Your task to perform on an android device: delete location history Image 0: 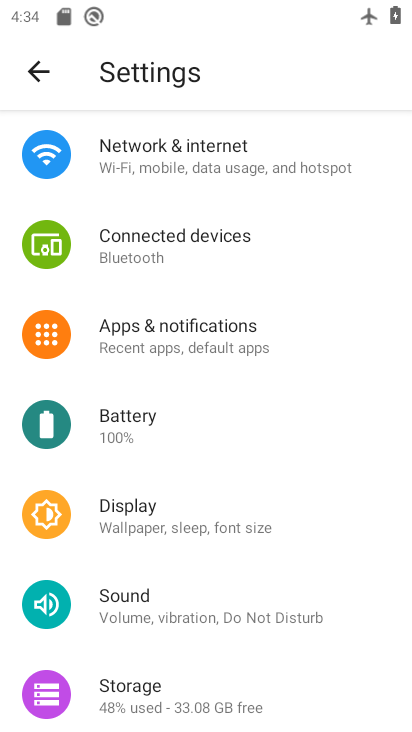
Step 0: drag from (137, 658) to (154, 263)
Your task to perform on an android device: delete location history Image 1: 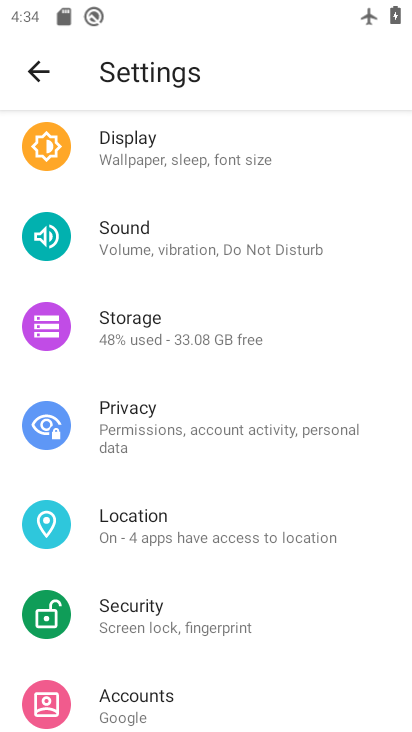
Step 1: click (135, 521)
Your task to perform on an android device: delete location history Image 2: 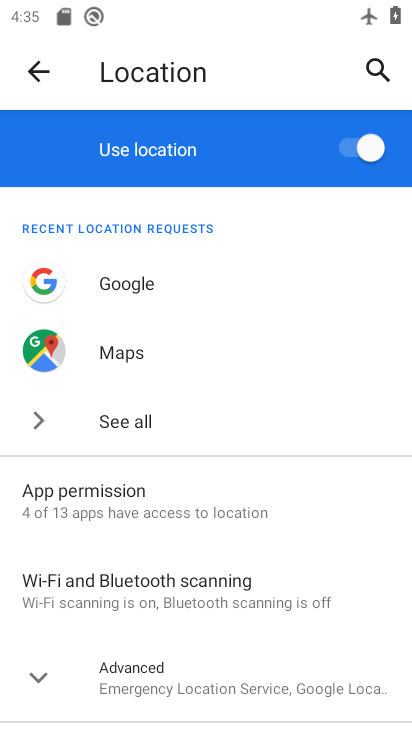
Step 2: click (149, 670)
Your task to perform on an android device: delete location history Image 3: 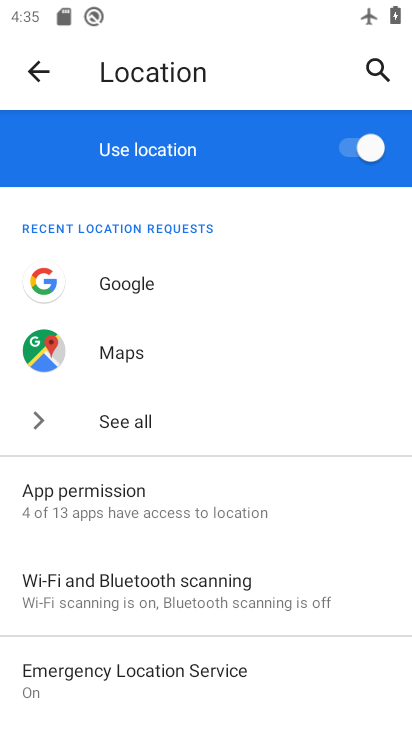
Step 3: drag from (147, 656) to (150, 339)
Your task to perform on an android device: delete location history Image 4: 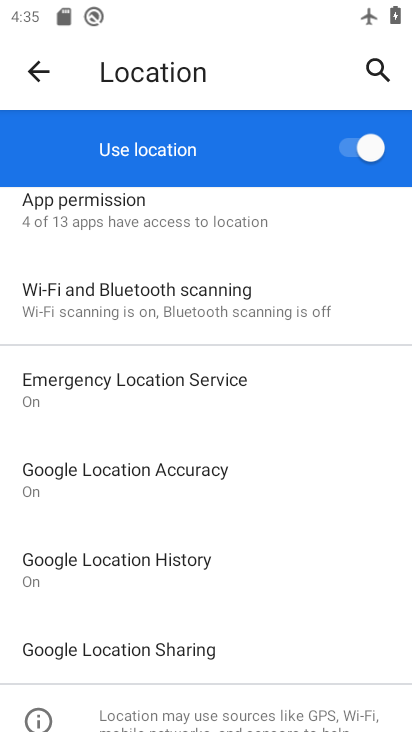
Step 4: click (141, 555)
Your task to perform on an android device: delete location history Image 5: 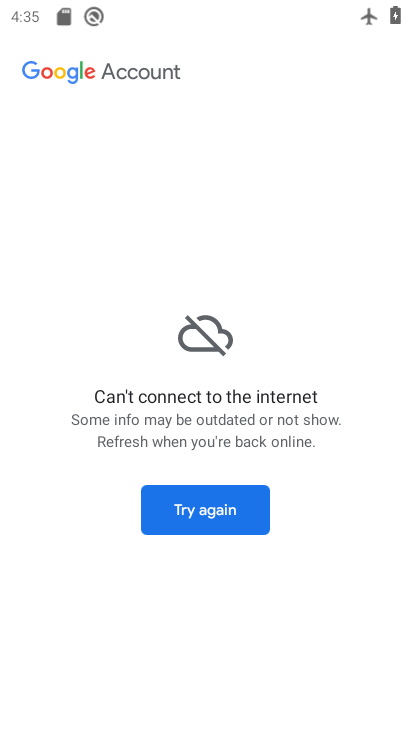
Step 5: task complete